Your task to perform on an android device: turn smart compose on in the gmail app Image 0: 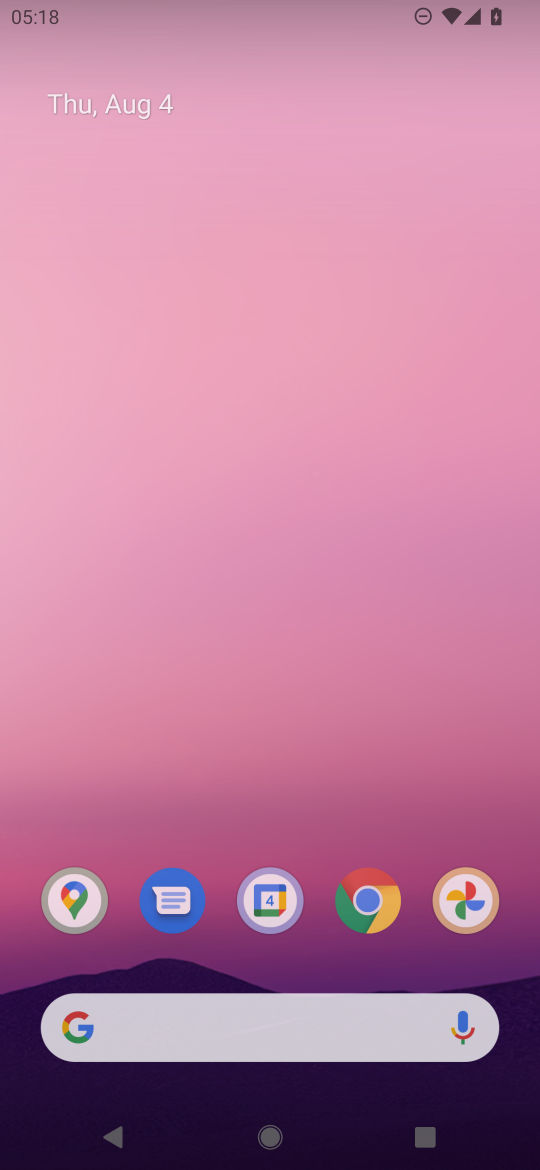
Step 0: press home button
Your task to perform on an android device: turn smart compose on in the gmail app Image 1: 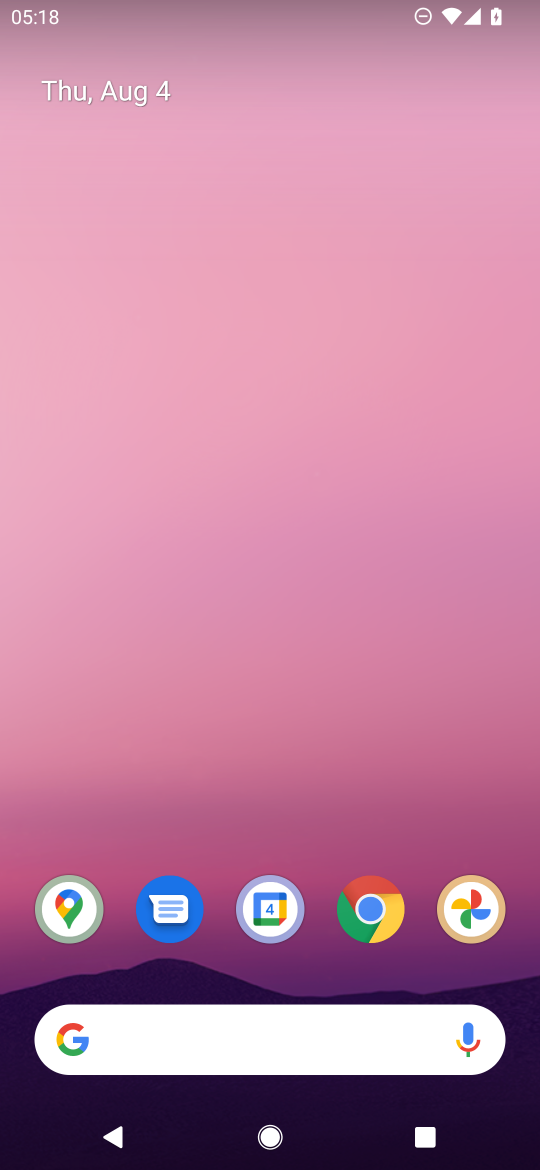
Step 1: drag from (376, 751) to (399, 269)
Your task to perform on an android device: turn smart compose on in the gmail app Image 2: 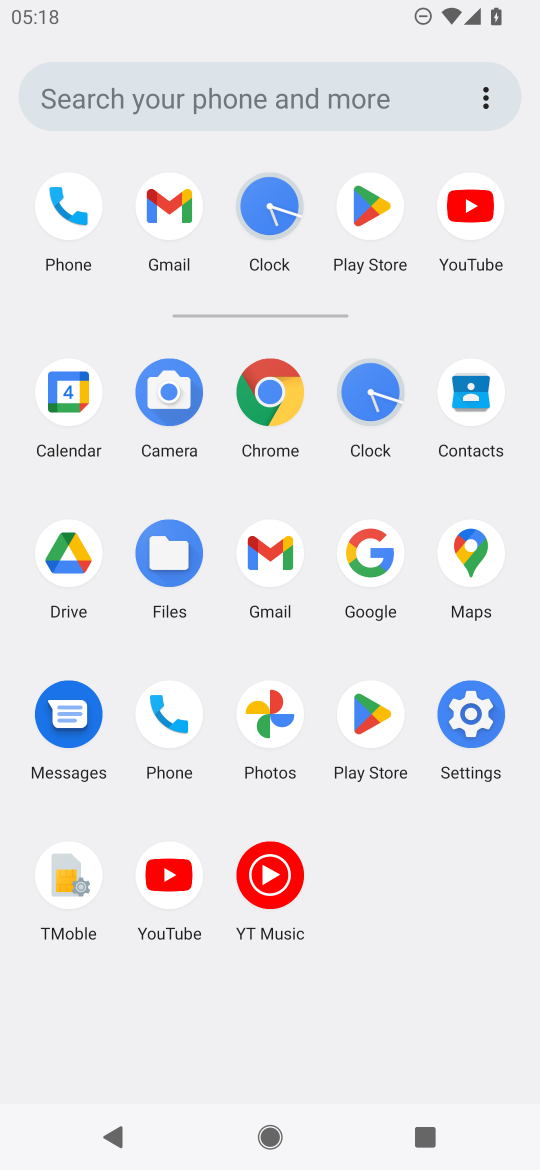
Step 2: click (159, 223)
Your task to perform on an android device: turn smart compose on in the gmail app Image 3: 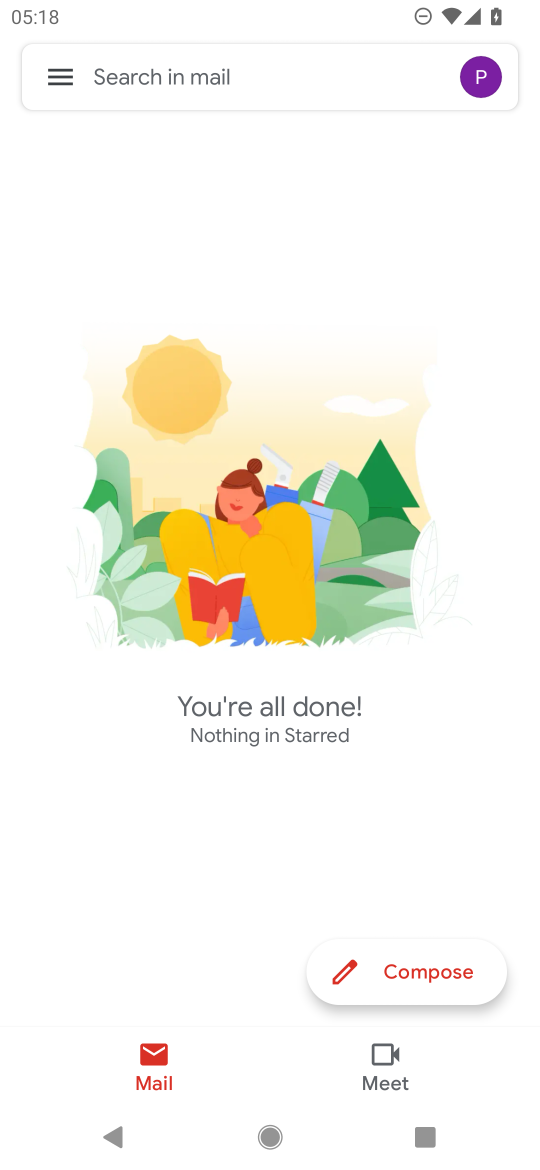
Step 3: click (53, 70)
Your task to perform on an android device: turn smart compose on in the gmail app Image 4: 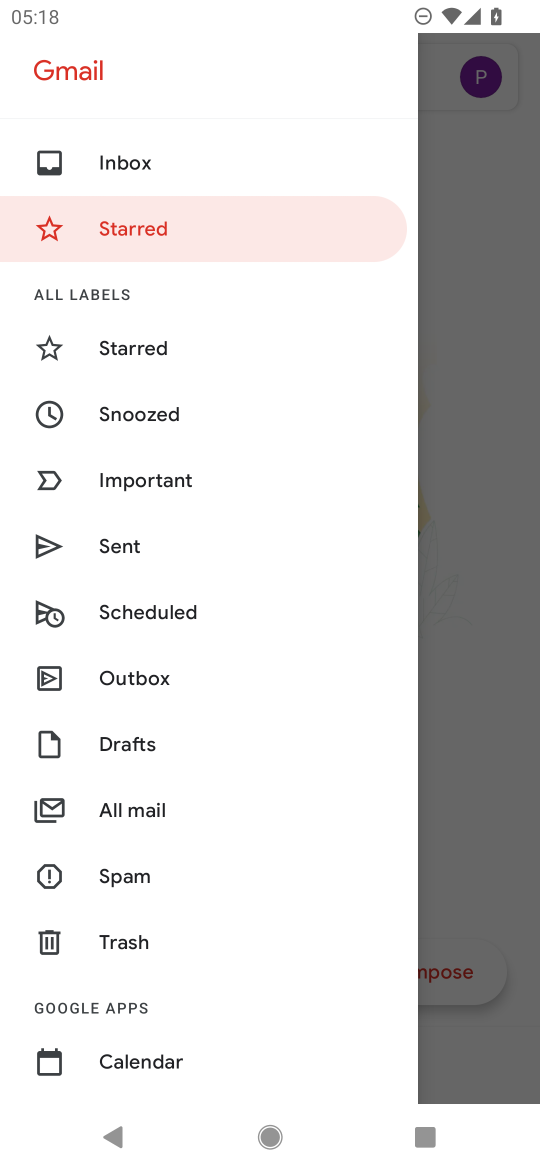
Step 4: drag from (268, 960) to (243, 398)
Your task to perform on an android device: turn smart compose on in the gmail app Image 5: 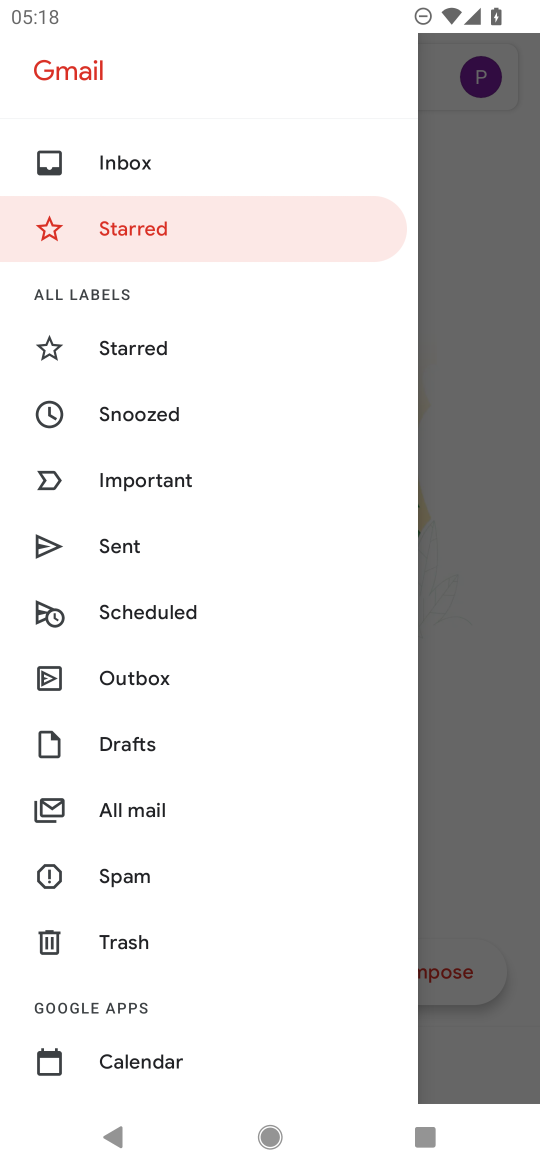
Step 5: drag from (290, 971) to (267, 205)
Your task to perform on an android device: turn smart compose on in the gmail app Image 6: 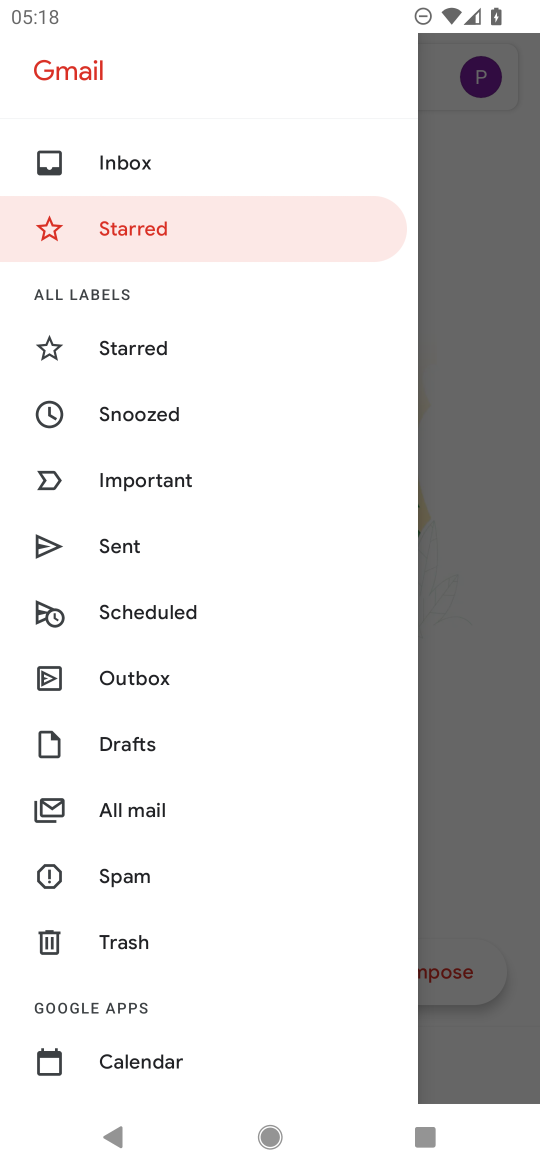
Step 6: drag from (255, 980) to (265, 70)
Your task to perform on an android device: turn smart compose on in the gmail app Image 7: 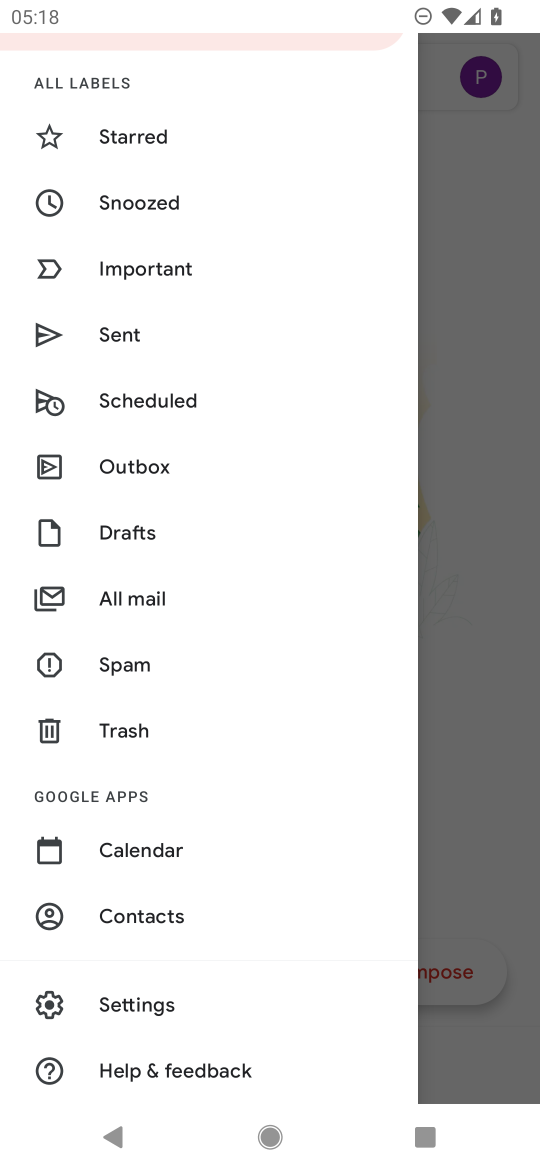
Step 7: click (134, 1002)
Your task to perform on an android device: turn smart compose on in the gmail app Image 8: 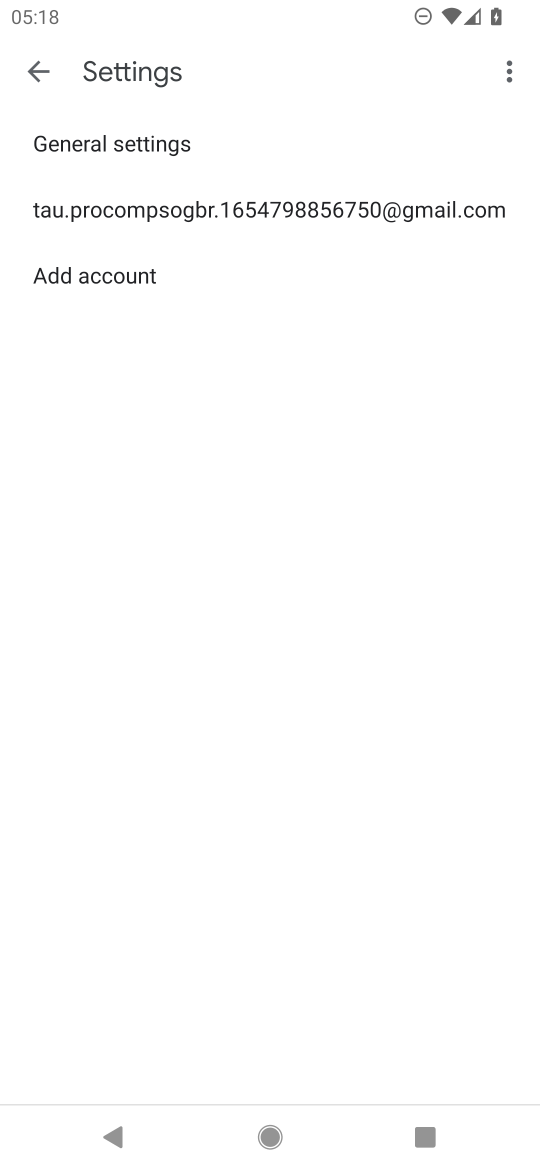
Step 8: click (226, 206)
Your task to perform on an android device: turn smart compose on in the gmail app Image 9: 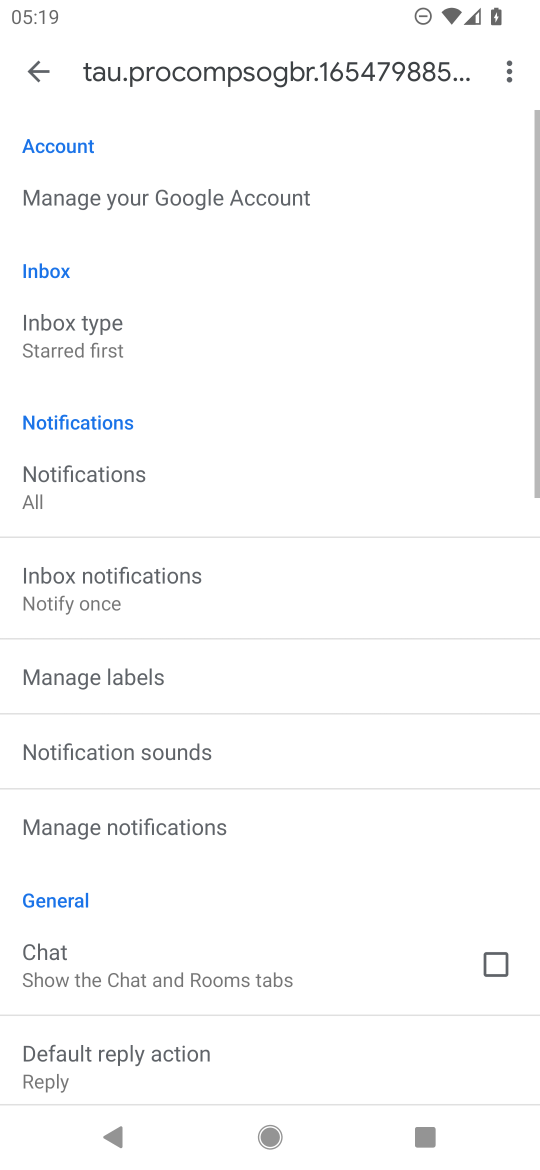
Step 9: task complete